Your task to perform on an android device: Go to network settings Image 0: 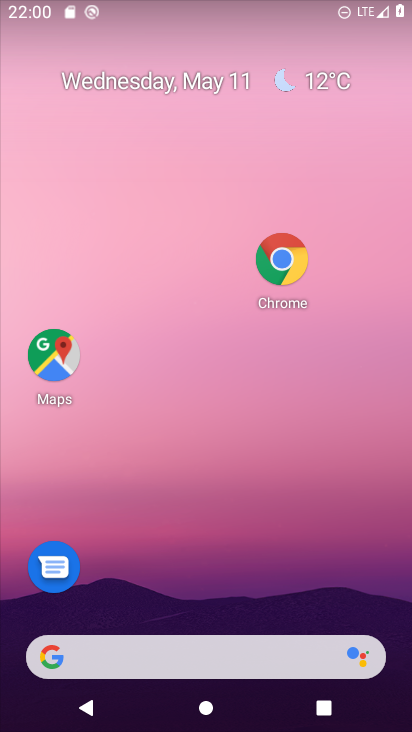
Step 0: press home button
Your task to perform on an android device: Go to network settings Image 1: 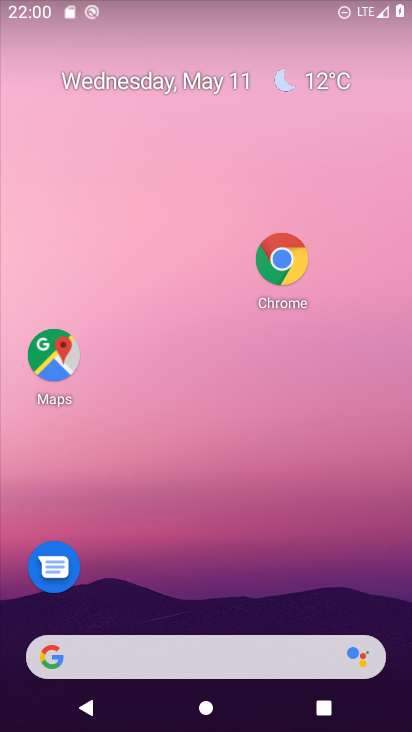
Step 1: drag from (200, 661) to (289, 76)
Your task to perform on an android device: Go to network settings Image 2: 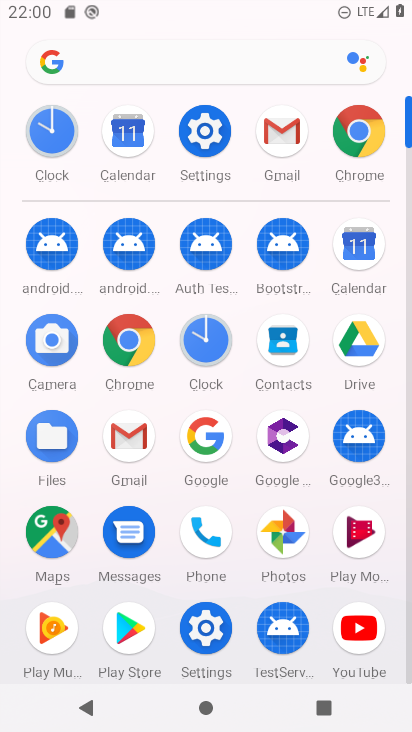
Step 2: click (211, 130)
Your task to perform on an android device: Go to network settings Image 3: 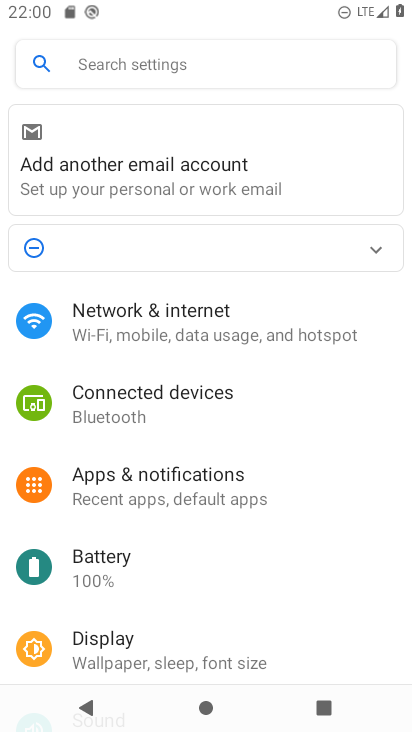
Step 3: click (166, 334)
Your task to perform on an android device: Go to network settings Image 4: 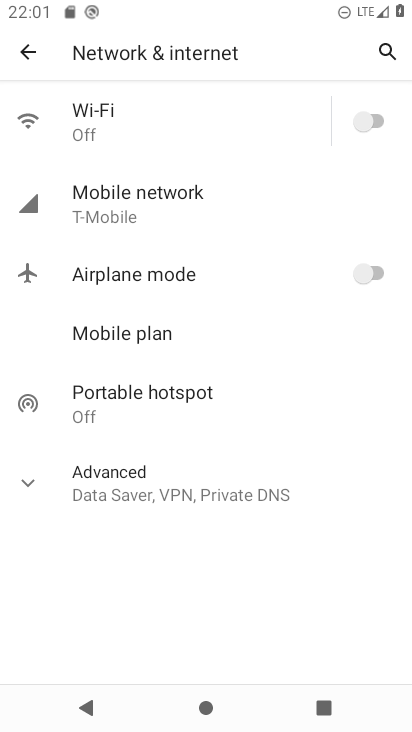
Step 4: task complete